Your task to perform on an android device: toggle show notifications on the lock screen Image 0: 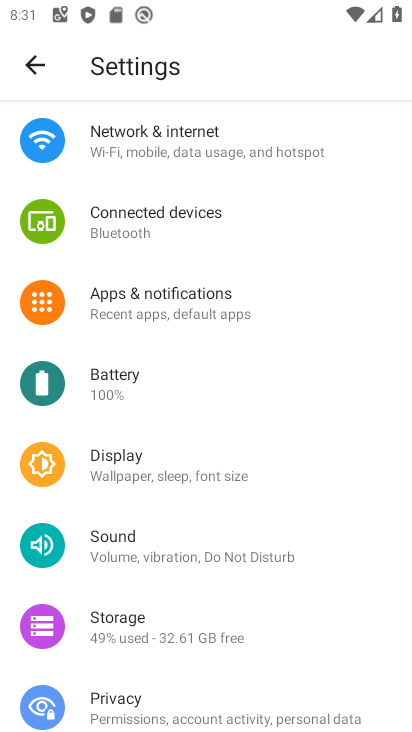
Step 0: press back button
Your task to perform on an android device: toggle show notifications on the lock screen Image 1: 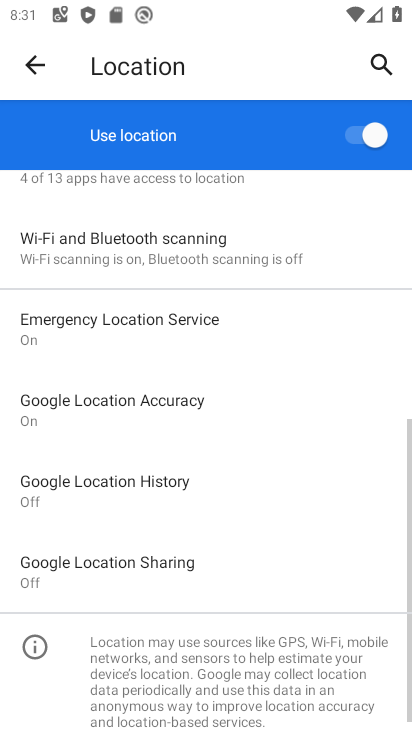
Step 1: press home button
Your task to perform on an android device: toggle show notifications on the lock screen Image 2: 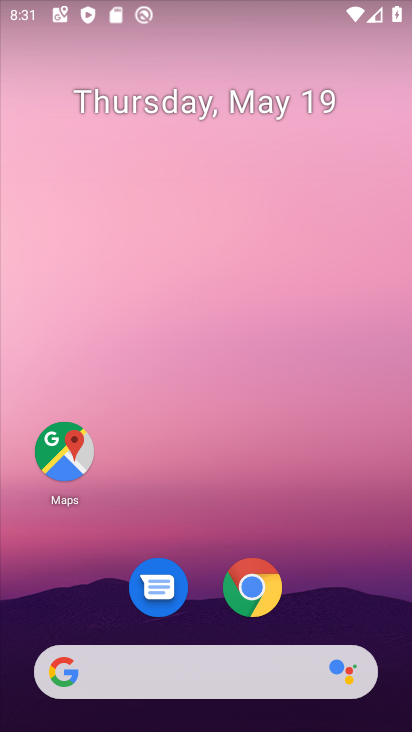
Step 2: drag from (312, 594) to (212, 36)
Your task to perform on an android device: toggle show notifications on the lock screen Image 3: 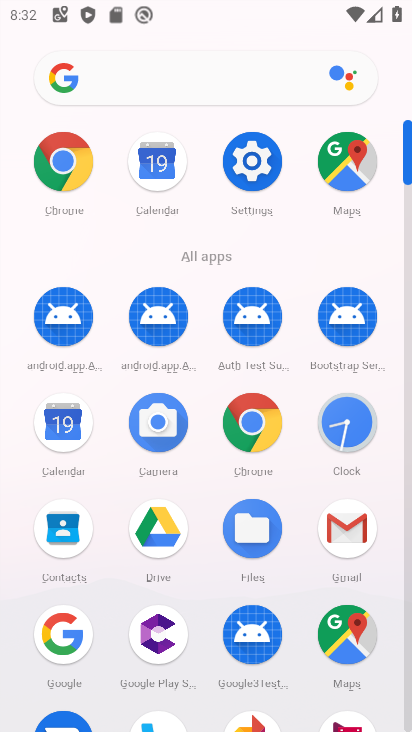
Step 3: click (252, 159)
Your task to perform on an android device: toggle show notifications on the lock screen Image 4: 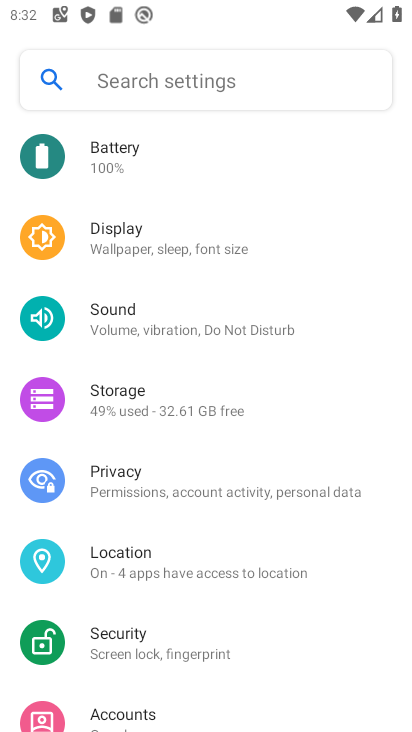
Step 4: drag from (268, 177) to (258, 542)
Your task to perform on an android device: toggle show notifications on the lock screen Image 5: 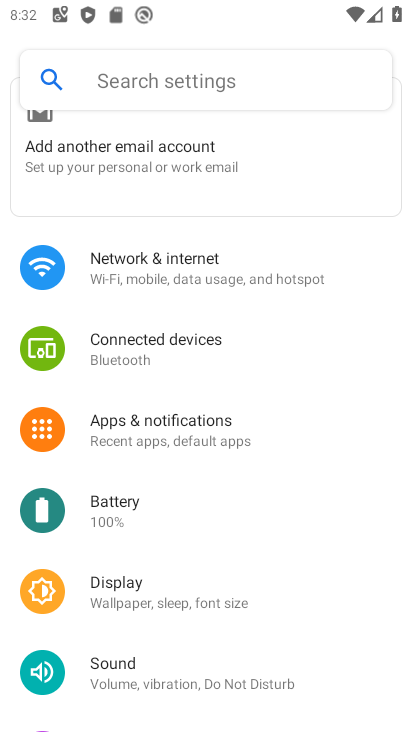
Step 5: click (173, 424)
Your task to perform on an android device: toggle show notifications on the lock screen Image 6: 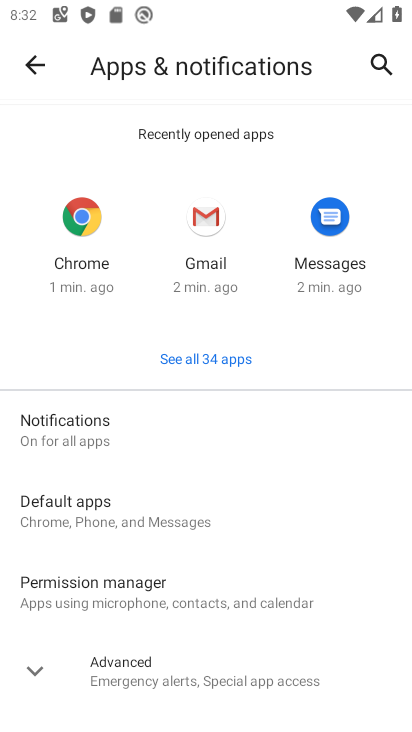
Step 6: click (173, 424)
Your task to perform on an android device: toggle show notifications on the lock screen Image 7: 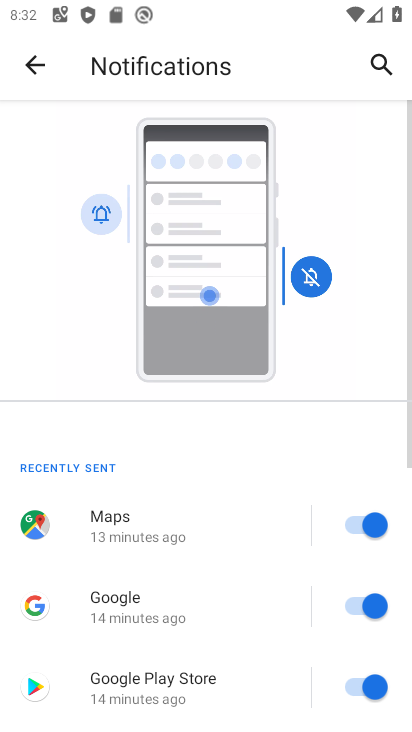
Step 7: drag from (196, 530) to (215, 104)
Your task to perform on an android device: toggle show notifications on the lock screen Image 8: 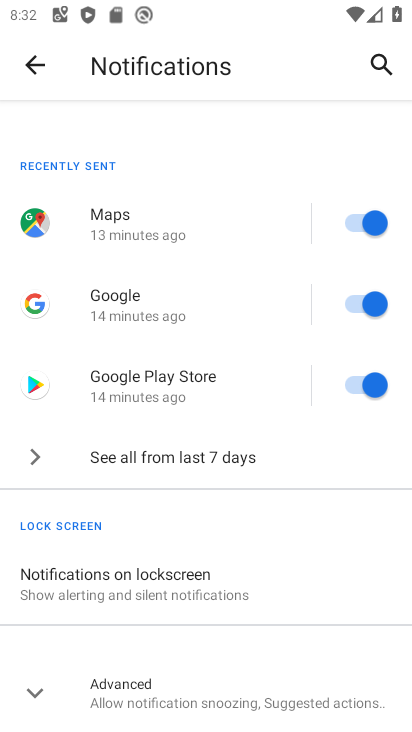
Step 8: click (28, 690)
Your task to perform on an android device: toggle show notifications on the lock screen Image 9: 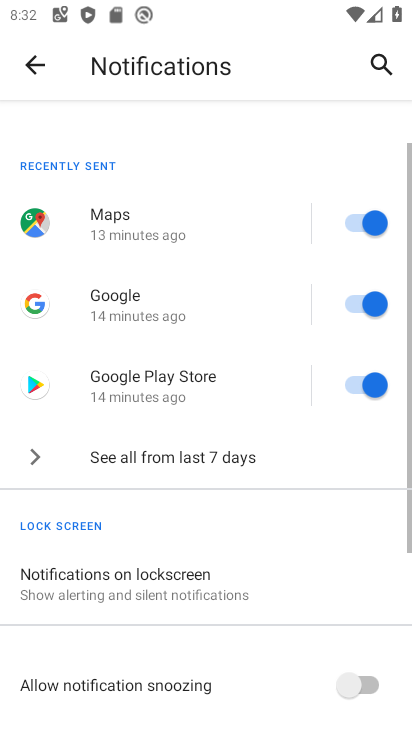
Step 9: drag from (168, 614) to (228, 235)
Your task to perform on an android device: toggle show notifications on the lock screen Image 10: 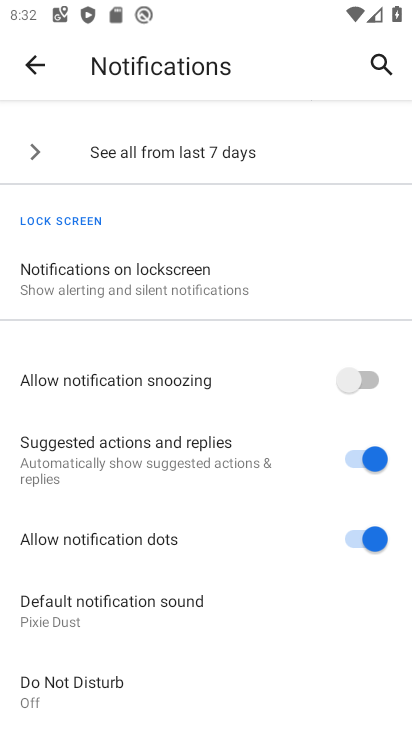
Step 10: click (202, 290)
Your task to perform on an android device: toggle show notifications on the lock screen Image 11: 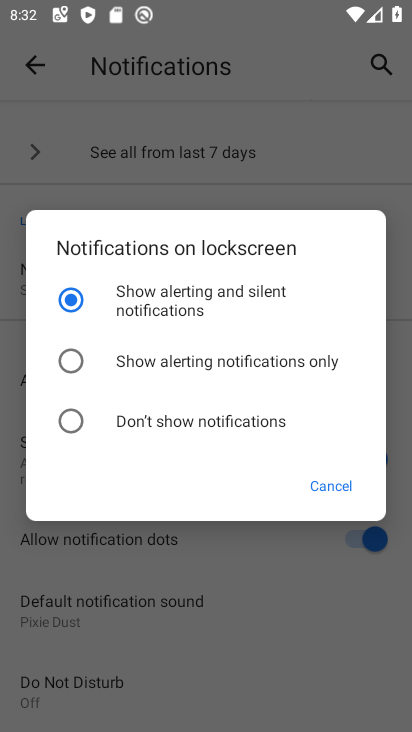
Step 11: click (202, 290)
Your task to perform on an android device: toggle show notifications on the lock screen Image 12: 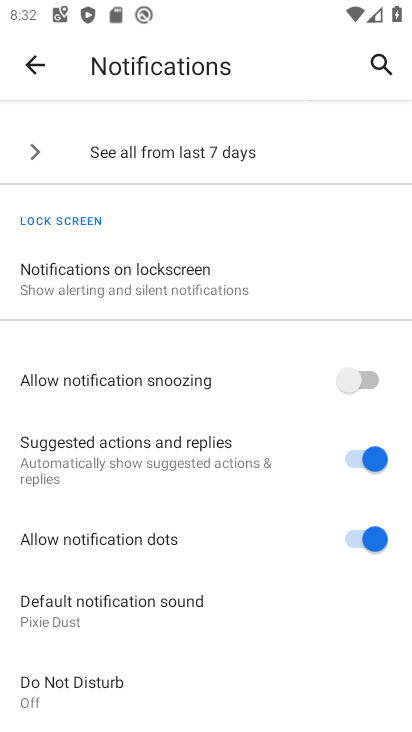
Step 12: task complete